Your task to perform on an android device: set the stopwatch Image 0: 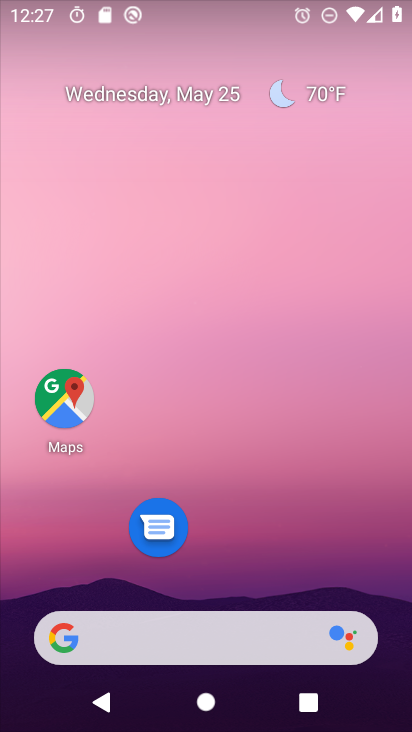
Step 0: drag from (252, 534) to (253, 64)
Your task to perform on an android device: set the stopwatch Image 1: 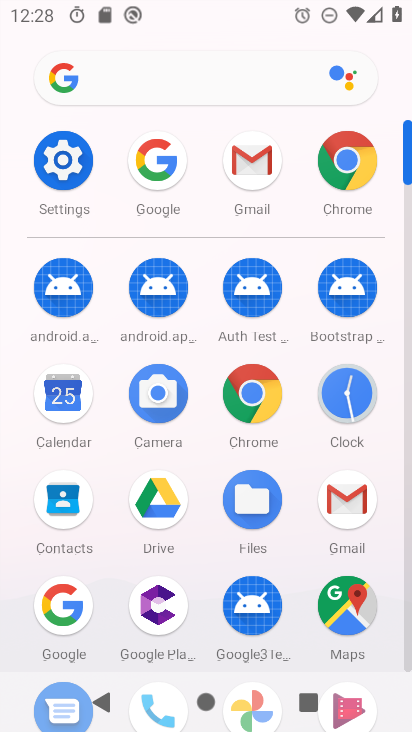
Step 1: click (349, 397)
Your task to perform on an android device: set the stopwatch Image 2: 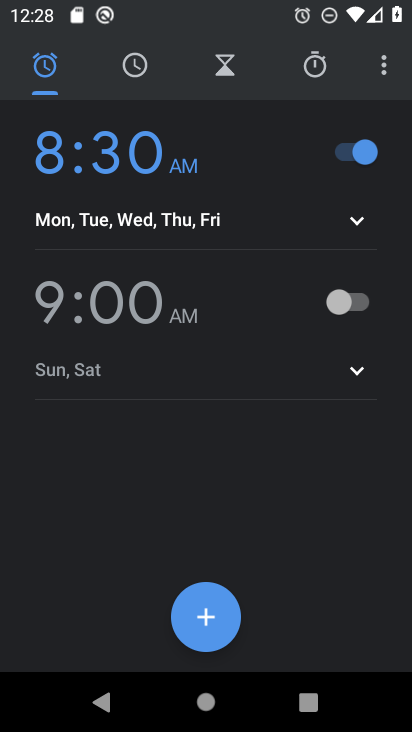
Step 2: click (324, 66)
Your task to perform on an android device: set the stopwatch Image 3: 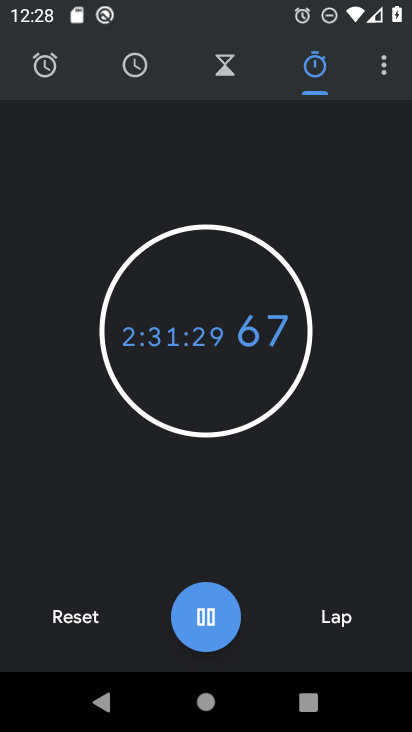
Step 3: task complete